Your task to perform on an android device: visit the assistant section in the google photos Image 0: 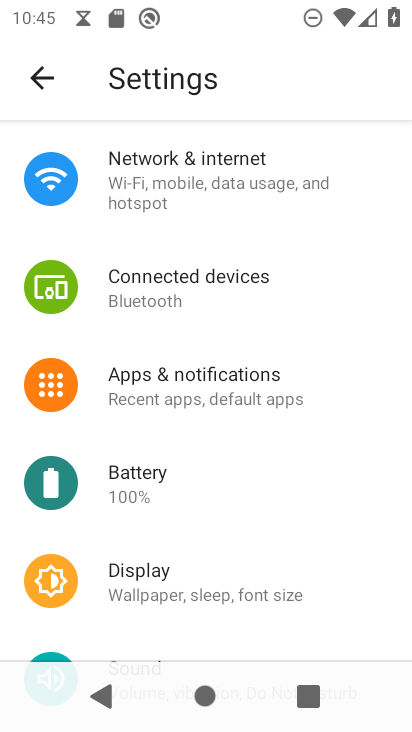
Step 0: press back button
Your task to perform on an android device: visit the assistant section in the google photos Image 1: 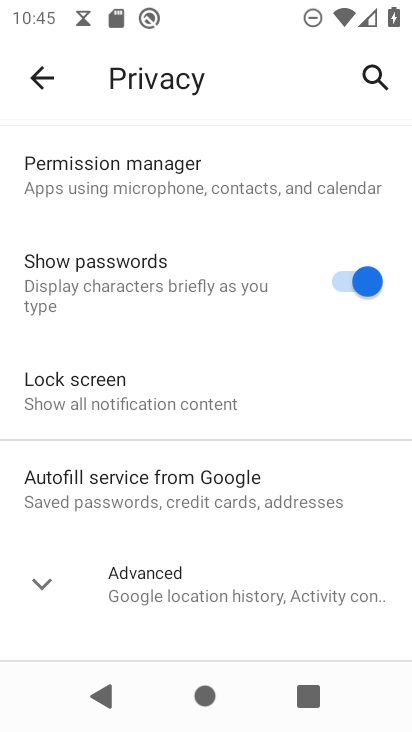
Step 1: press back button
Your task to perform on an android device: visit the assistant section in the google photos Image 2: 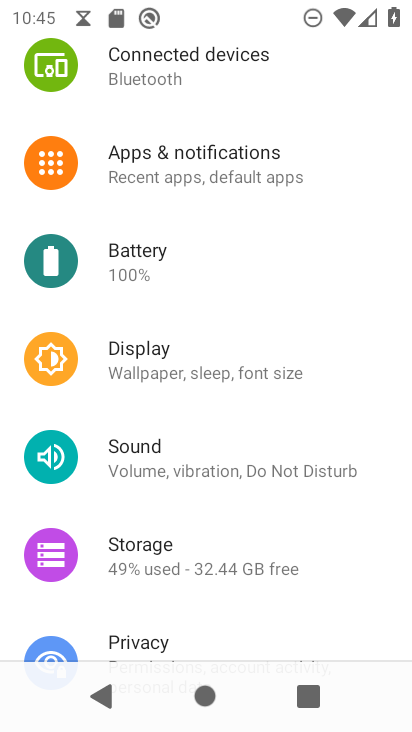
Step 2: press back button
Your task to perform on an android device: visit the assistant section in the google photos Image 3: 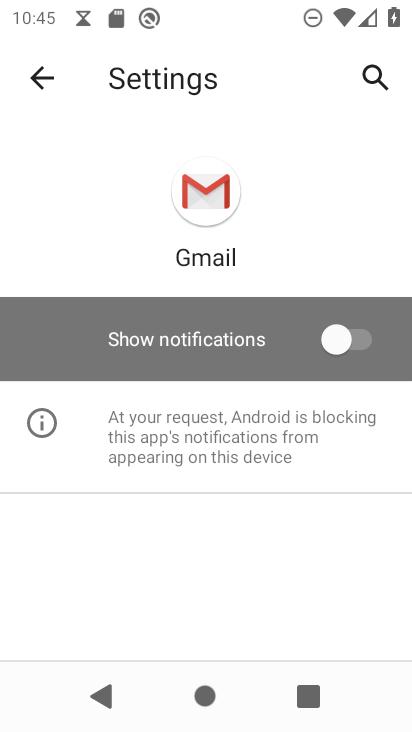
Step 3: press back button
Your task to perform on an android device: visit the assistant section in the google photos Image 4: 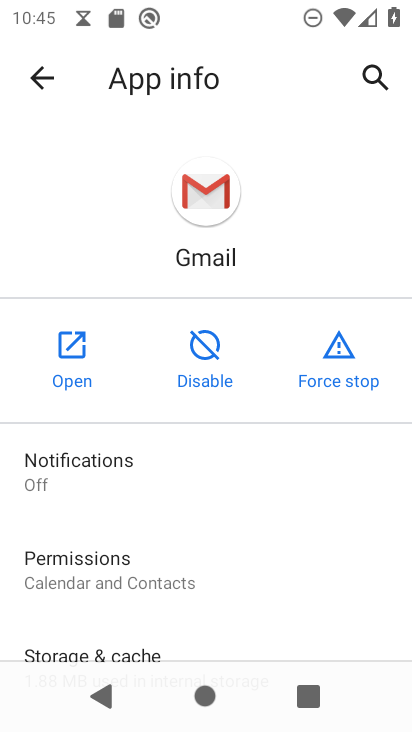
Step 4: press back button
Your task to perform on an android device: visit the assistant section in the google photos Image 5: 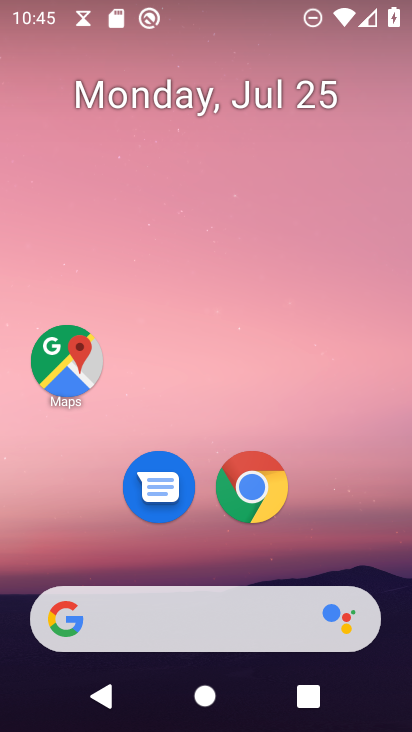
Step 5: drag from (181, 591) to (223, 7)
Your task to perform on an android device: visit the assistant section in the google photos Image 6: 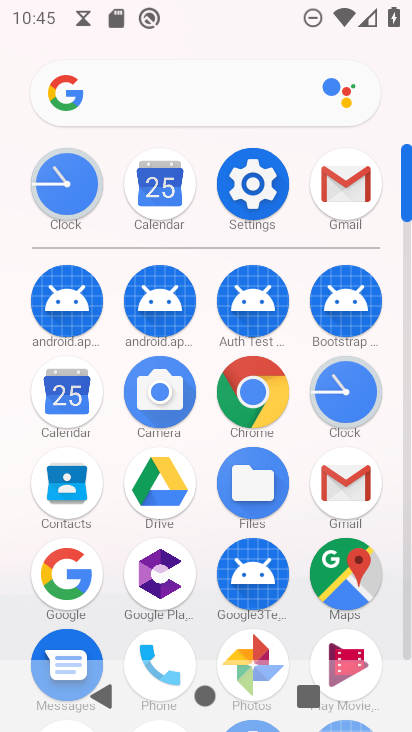
Step 6: click (251, 646)
Your task to perform on an android device: visit the assistant section in the google photos Image 7: 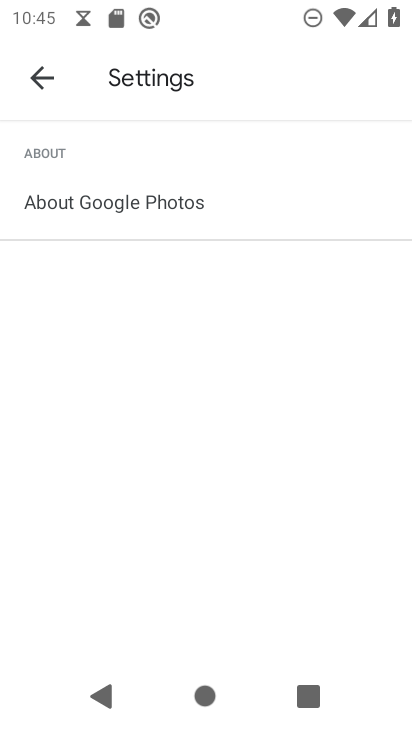
Step 7: click (30, 87)
Your task to perform on an android device: visit the assistant section in the google photos Image 8: 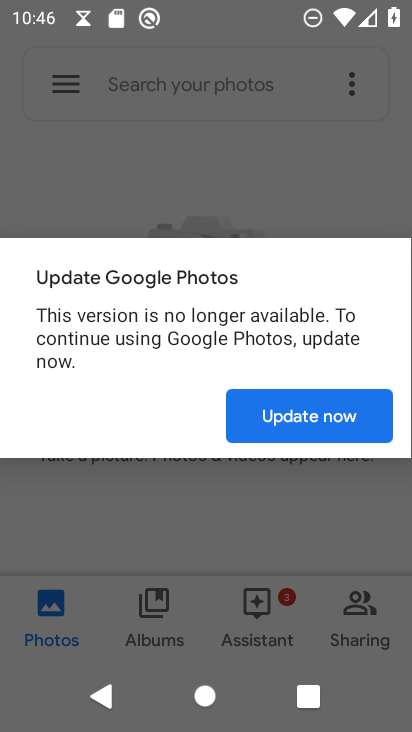
Step 8: click (316, 415)
Your task to perform on an android device: visit the assistant section in the google photos Image 9: 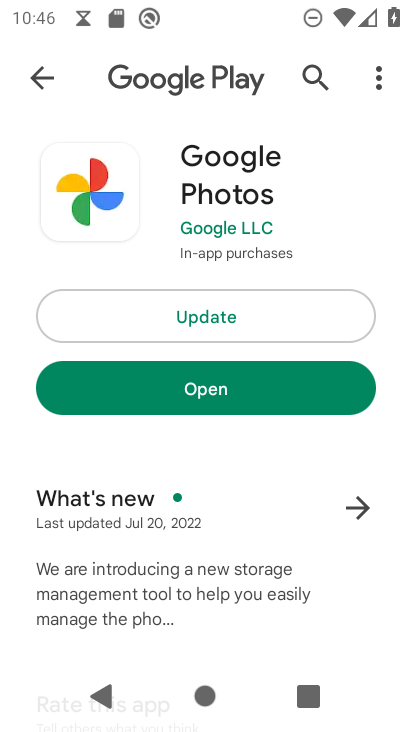
Step 9: click (40, 69)
Your task to perform on an android device: visit the assistant section in the google photos Image 10: 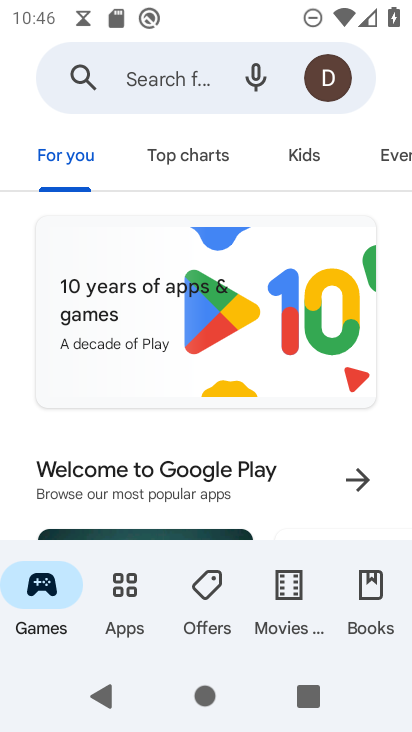
Step 10: press back button
Your task to perform on an android device: visit the assistant section in the google photos Image 11: 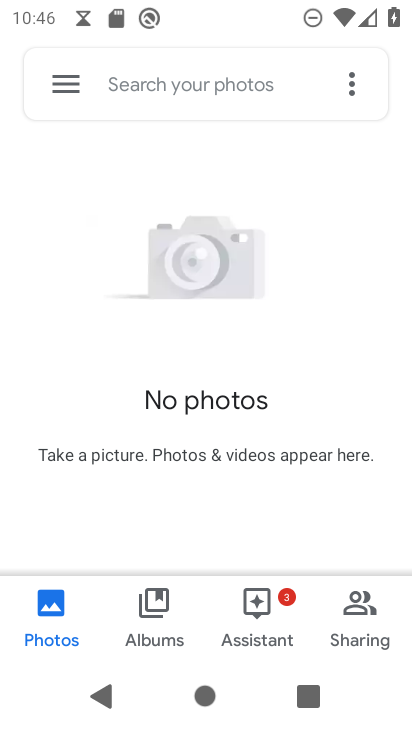
Step 11: click (277, 610)
Your task to perform on an android device: visit the assistant section in the google photos Image 12: 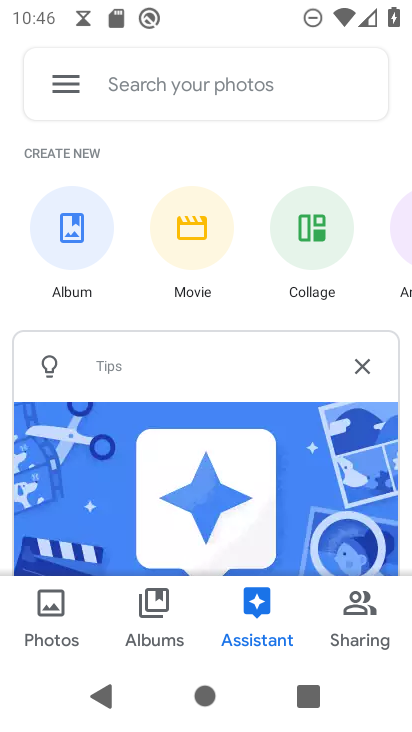
Step 12: task complete